Your task to perform on an android device: check data usage Image 0: 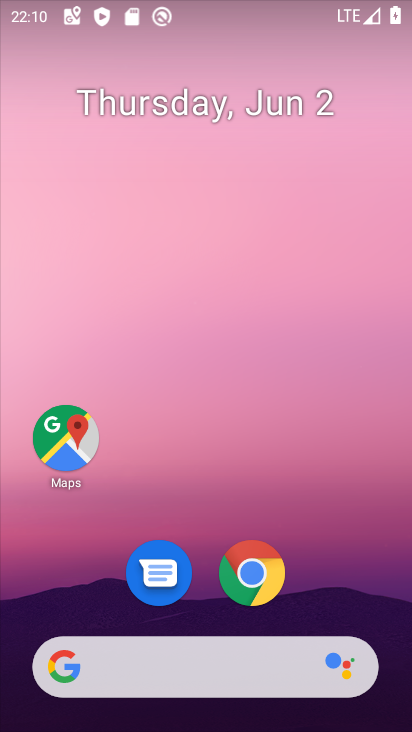
Step 0: drag from (312, 574) to (314, 271)
Your task to perform on an android device: check data usage Image 1: 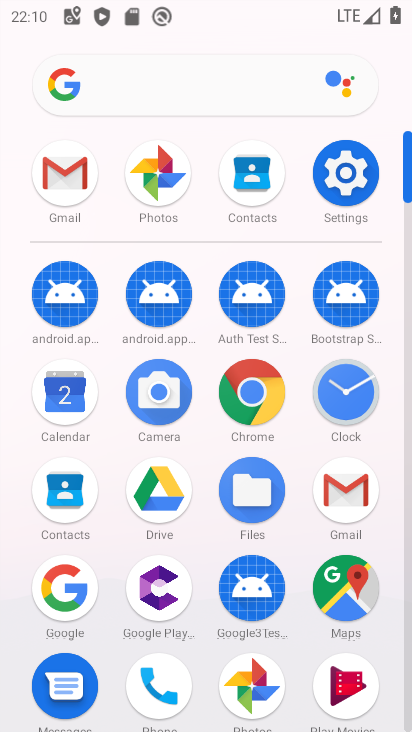
Step 1: click (348, 161)
Your task to perform on an android device: check data usage Image 2: 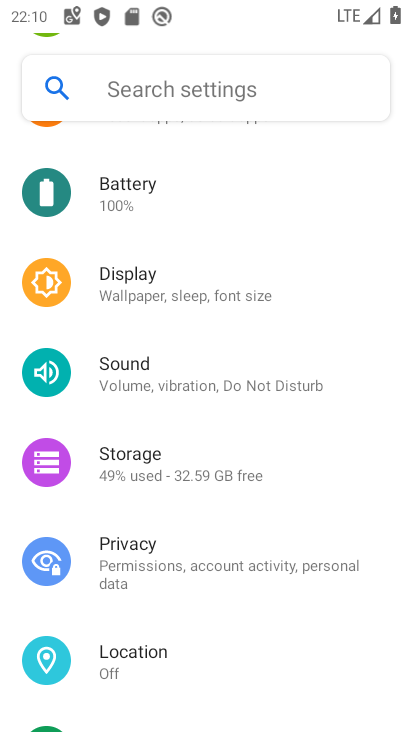
Step 2: drag from (223, 645) to (233, 296)
Your task to perform on an android device: check data usage Image 3: 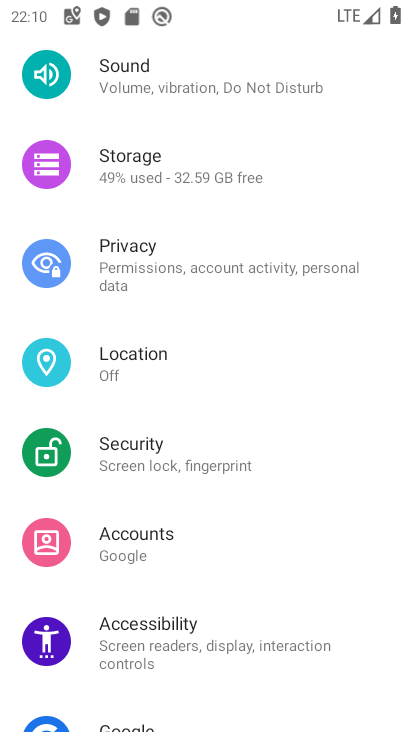
Step 3: drag from (290, 171) to (285, 338)
Your task to perform on an android device: check data usage Image 4: 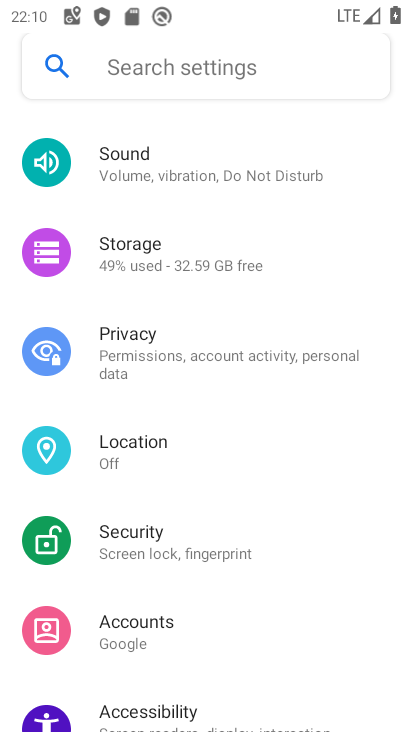
Step 4: drag from (281, 170) to (284, 499)
Your task to perform on an android device: check data usage Image 5: 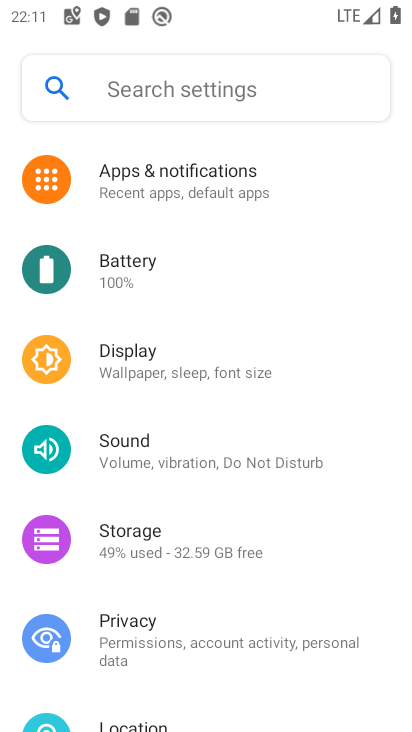
Step 5: drag from (248, 184) to (221, 347)
Your task to perform on an android device: check data usage Image 6: 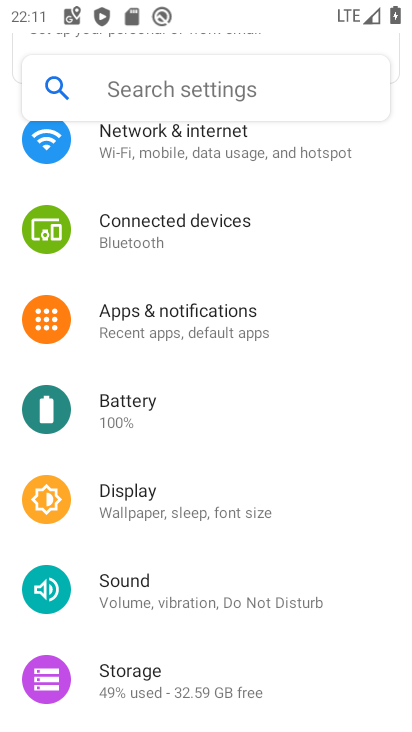
Step 6: click (222, 138)
Your task to perform on an android device: check data usage Image 7: 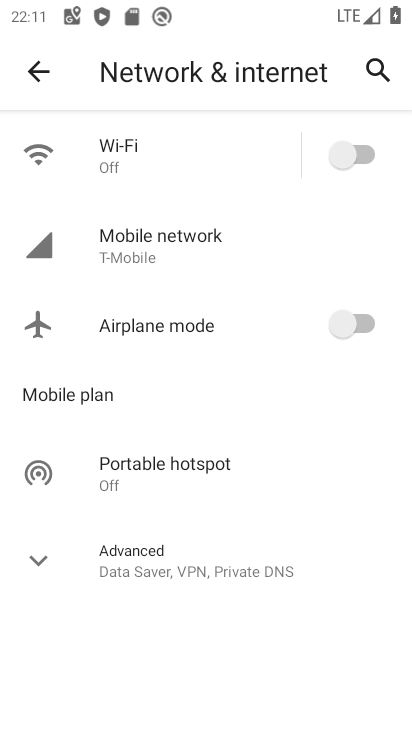
Step 7: click (142, 262)
Your task to perform on an android device: check data usage Image 8: 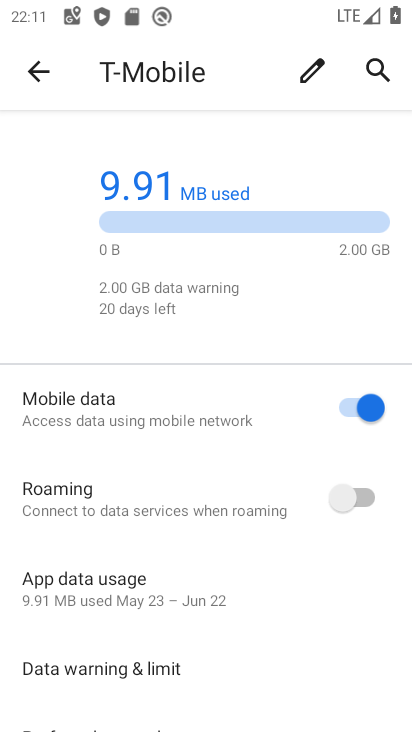
Step 8: click (113, 582)
Your task to perform on an android device: check data usage Image 9: 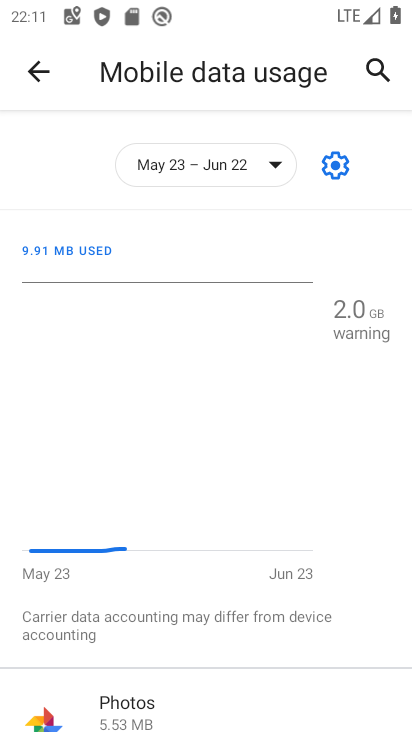
Step 9: task complete